Your task to perform on an android device: check data usage Image 0: 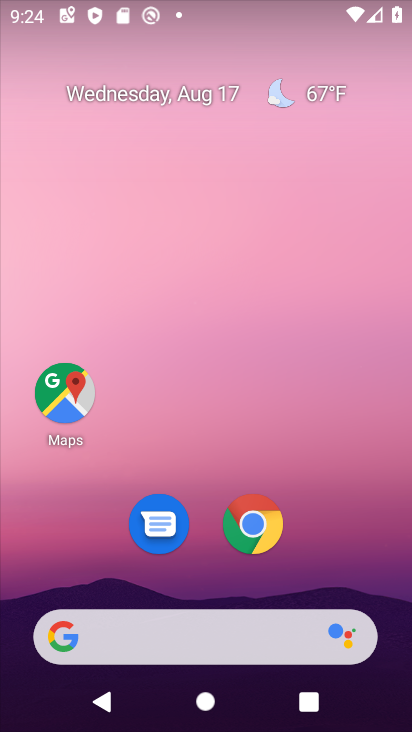
Step 0: drag from (322, 540) to (308, 2)
Your task to perform on an android device: check data usage Image 1: 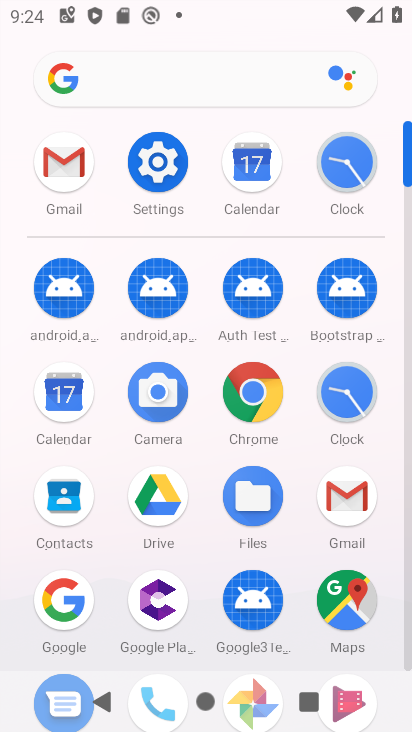
Step 1: click (166, 163)
Your task to perform on an android device: check data usage Image 2: 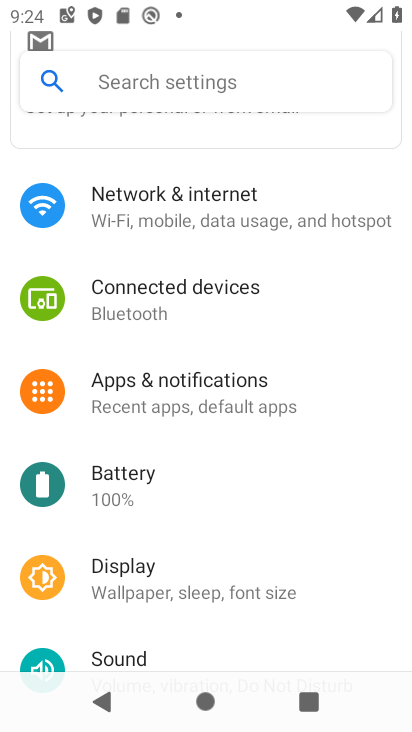
Step 2: click (209, 213)
Your task to perform on an android device: check data usage Image 3: 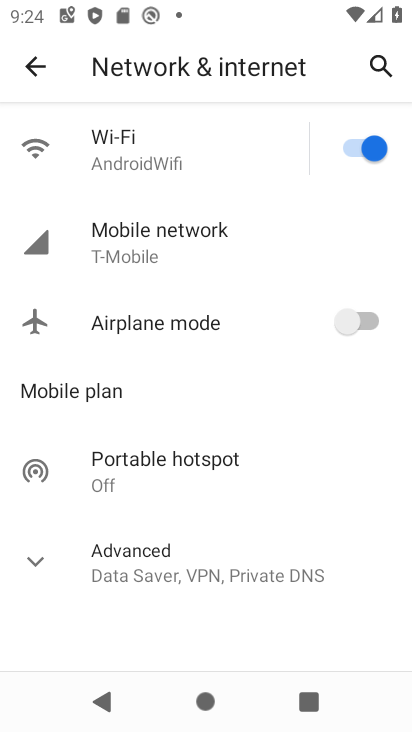
Step 3: click (210, 234)
Your task to perform on an android device: check data usage Image 4: 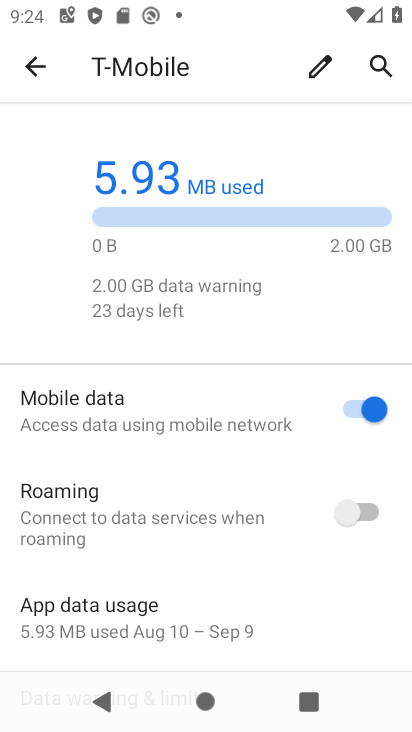
Step 4: task complete